Your task to perform on an android device: find snoozed emails in the gmail app Image 0: 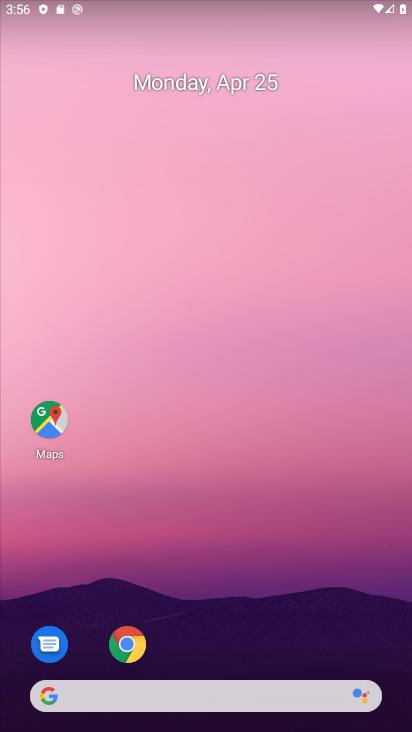
Step 0: drag from (212, 646) to (236, 212)
Your task to perform on an android device: find snoozed emails in the gmail app Image 1: 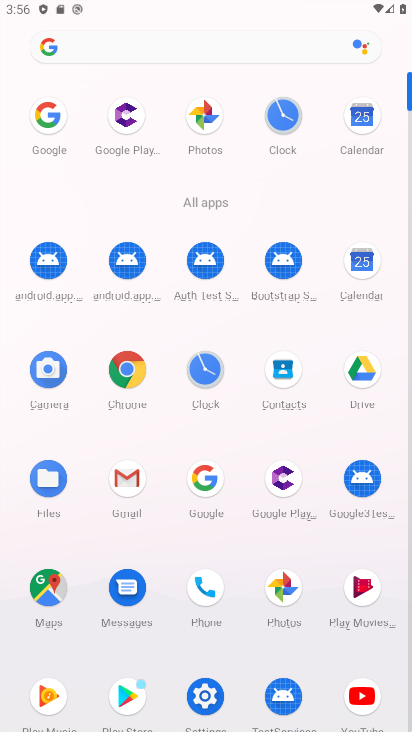
Step 1: click (130, 490)
Your task to perform on an android device: find snoozed emails in the gmail app Image 2: 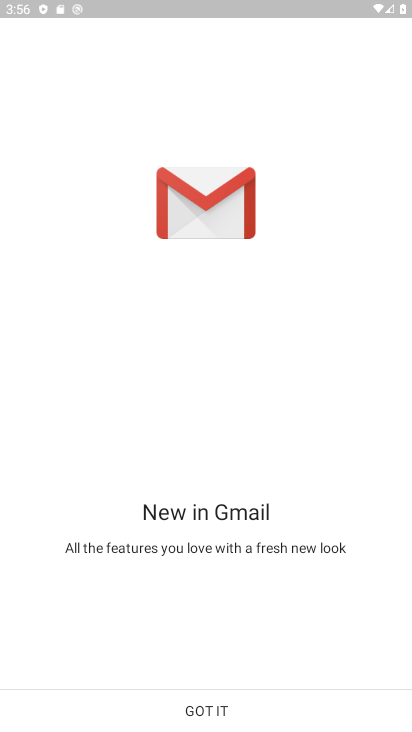
Step 2: click (212, 711)
Your task to perform on an android device: find snoozed emails in the gmail app Image 3: 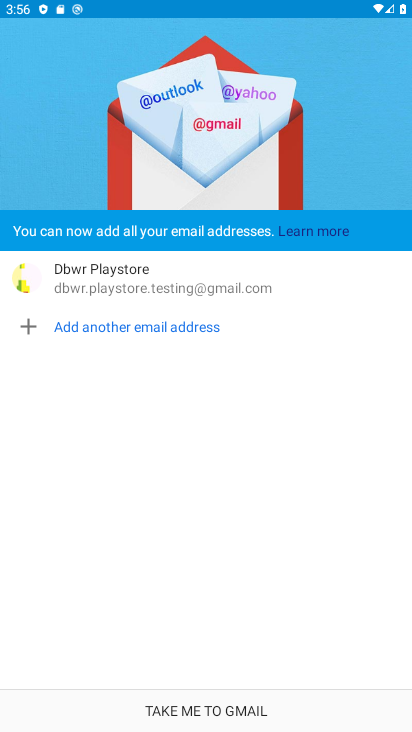
Step 3: click (213, 711)
Your task to perform on an android device: find snoozed emails in the gmail app Image 4: 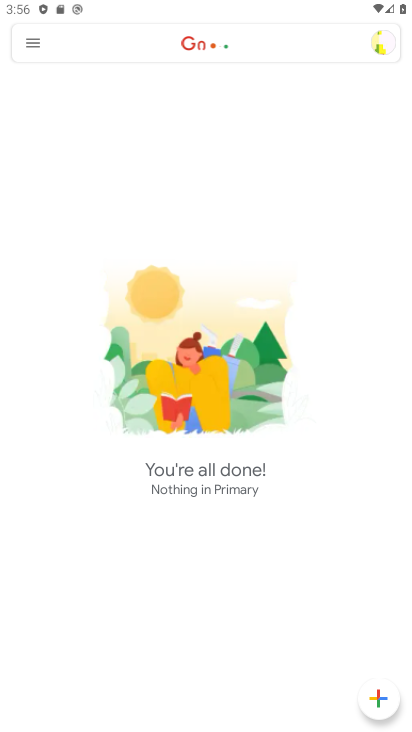
Step 4: click (29, 43)
Your task to perform on an android device: find snoozed emails in the gmail app Image 5: 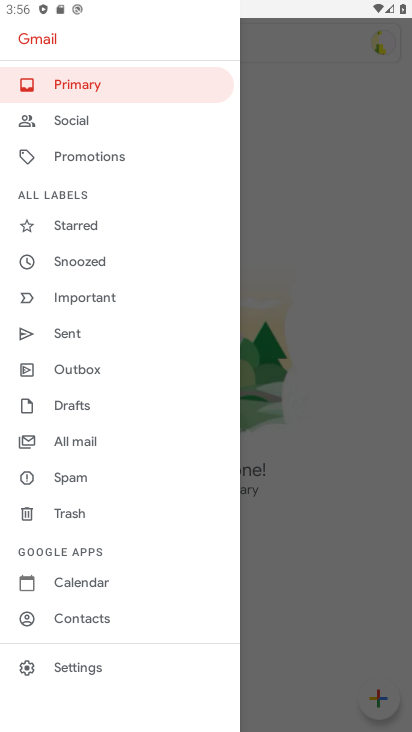
Step 5: click (91, 258)
Your task to perform on an android device: find snoozed emails in the gmail app Image 6: 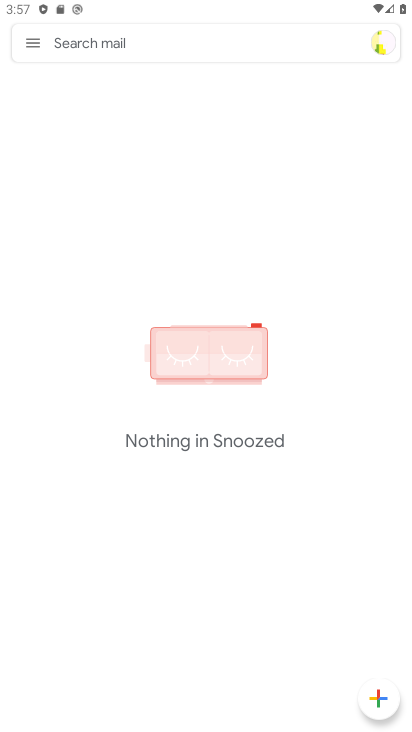
Step 6: task complete